Your task to perform on an android device: Search for Mexican restaurants on Maps Image 0: 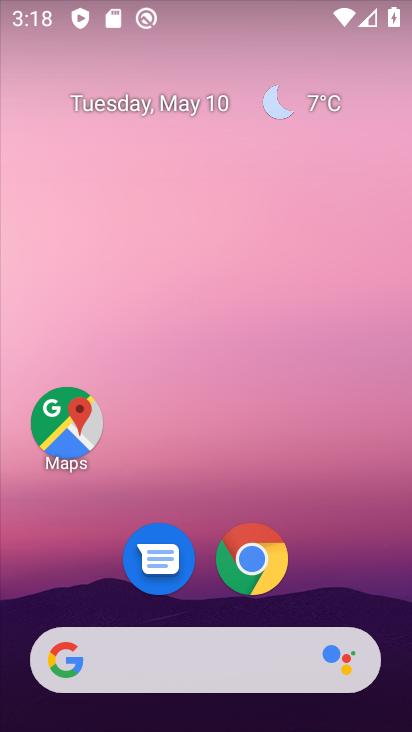
Step 0: click (90, 422)
Your task to perform on an android device: Search for Mexican restaurants on Maps Image 1: 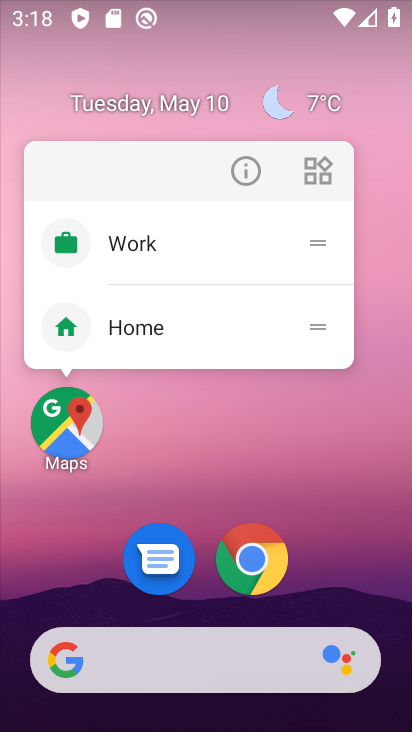
Step 1: click (87, 434)
Your task to perform on an android device: Search for Mexican restaurants on Maps Image 2: 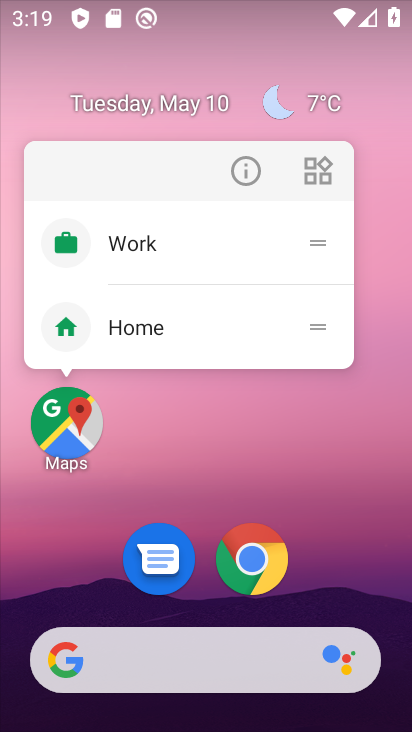
Step 2: click (40, 429)
Your task to perform on an android device: Search for Mexican restaurants on Maps Image 3: 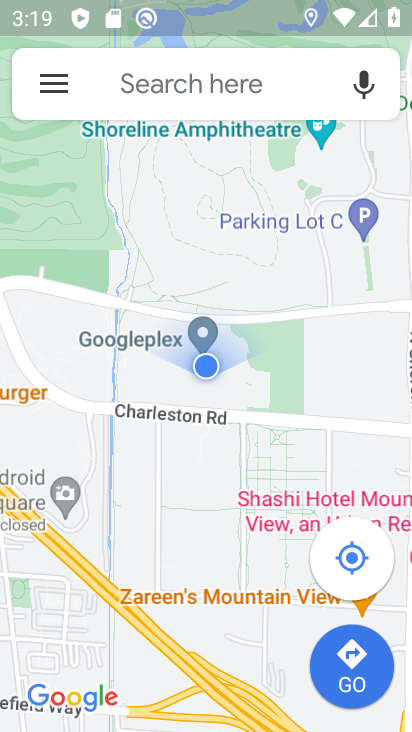
Step 3: click (208, 67)
Your task to perform on an android device: Search for Mexican restaurants on Maps Image 4: 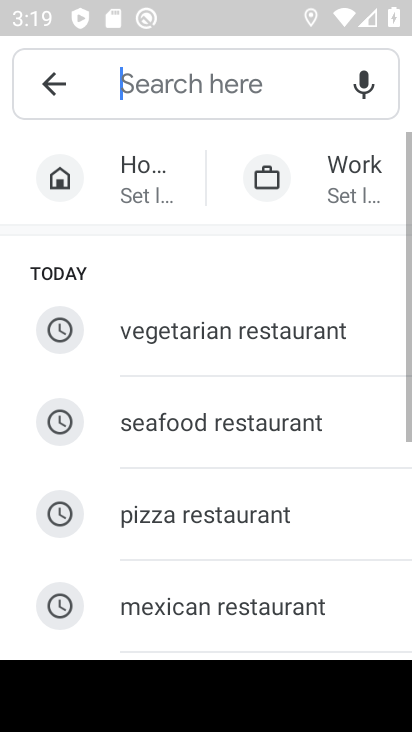
Step 4: click (267, 604)
Your task to perform on an android device: Search for Mexican restaurants on Maps Image 5: 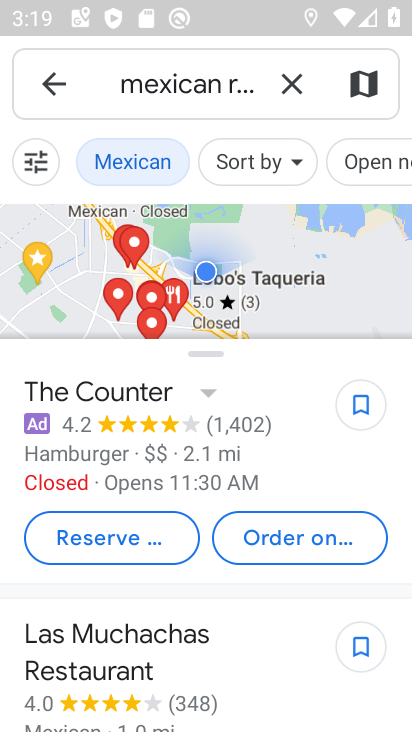
Step 5: task complete